Your task to perform on an android device: turn on location history Image 0: 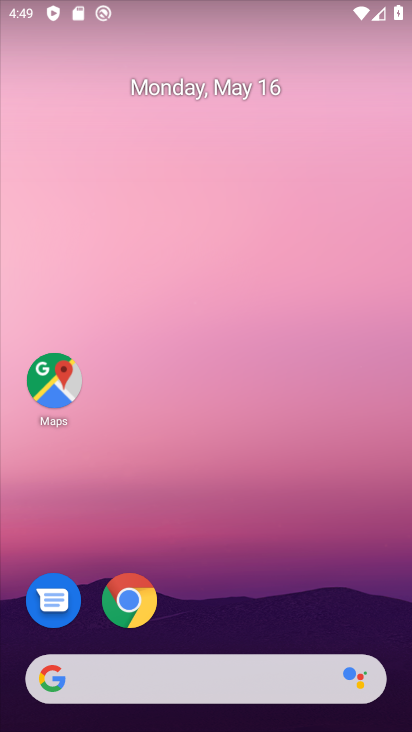
Step 0: drag from (208, 636) to (260, 5)
Your task to perform on an android device: turn on location history Image 1: 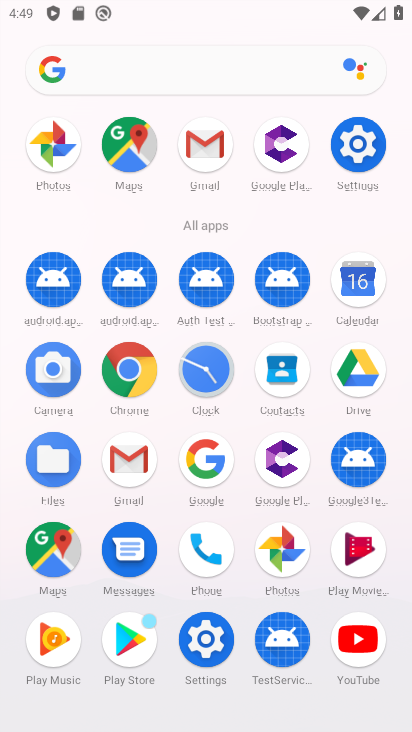
Step 1: click (344, 140)
Your task to perform on an android device: turn on location history Image 2: 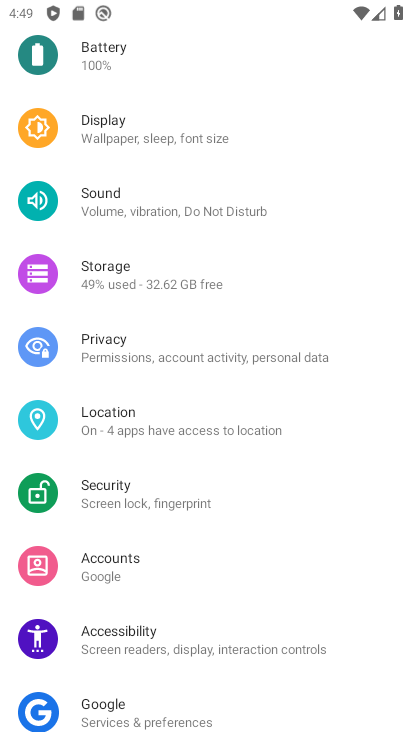
Step 2: click (106, 414)
Your task to perform on an android device: turn on location history Image 3: 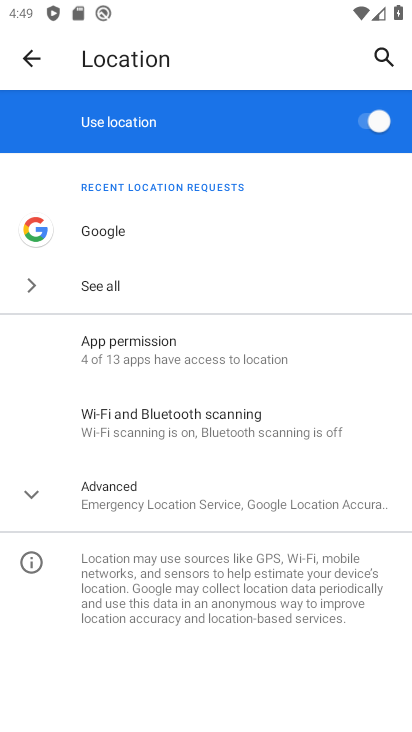
Step 3: click (112, 490)
Your task to perform on an android device: turn on location history Image 4: 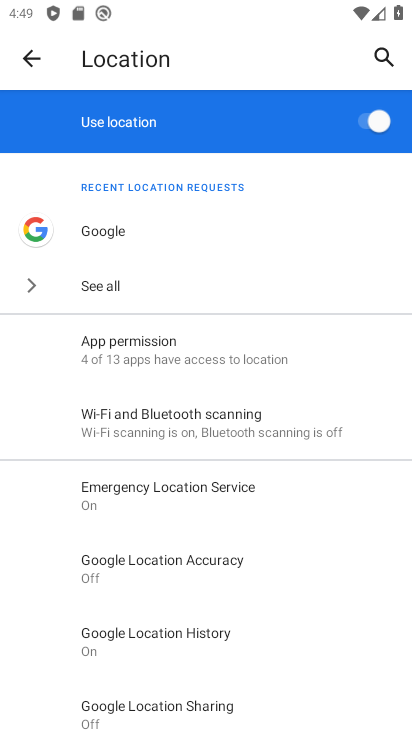
Step 4: click (183, 647)
Your task to perform on an android device: turn on location history Image 5: 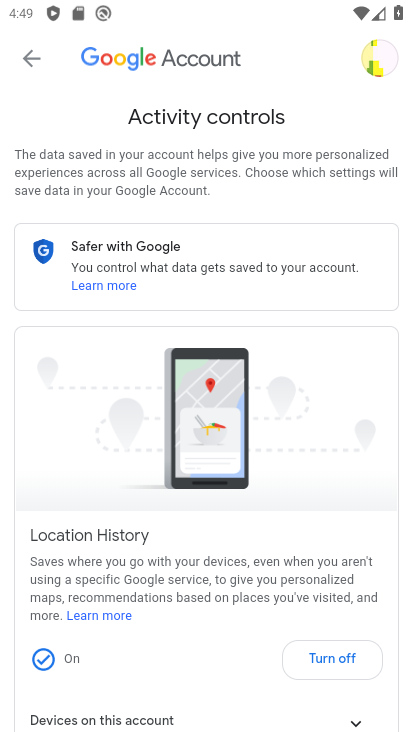
Step 5: task complete